Your task to perform on an android device: turn off data saver in the chrome app Image 0: 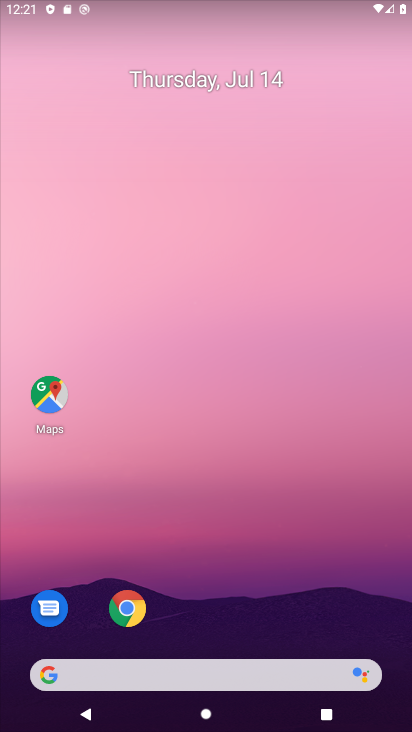
Step 0: drag from (287, 630) to (268, 339)
Your task to perform on an android device: turn off data saver in the chrome app Image 1: 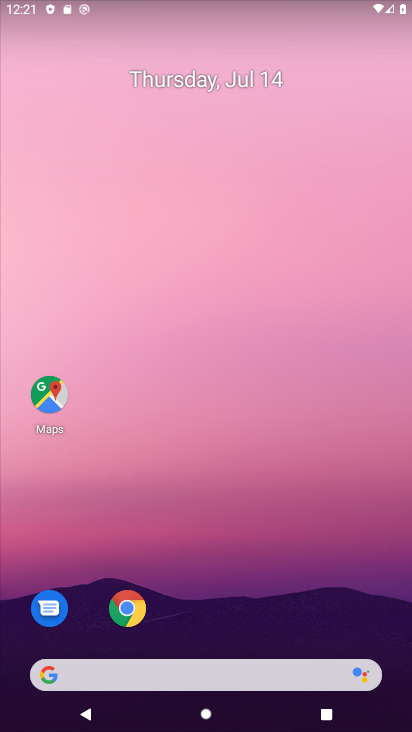
Step 1: drag from (272, 618) to (239, 61)
Your task to perform on an android device: turn off data saver in the chrome app Image 2: 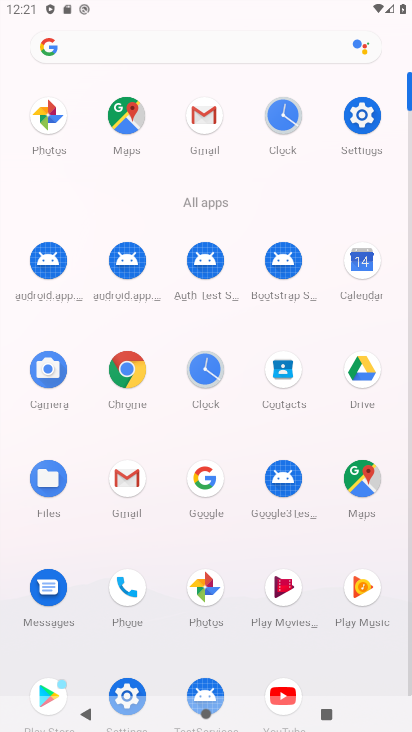
Step 2: click (146, 361)
Your task to perform on an android device: turn off data saver in the chrome app Image 3: 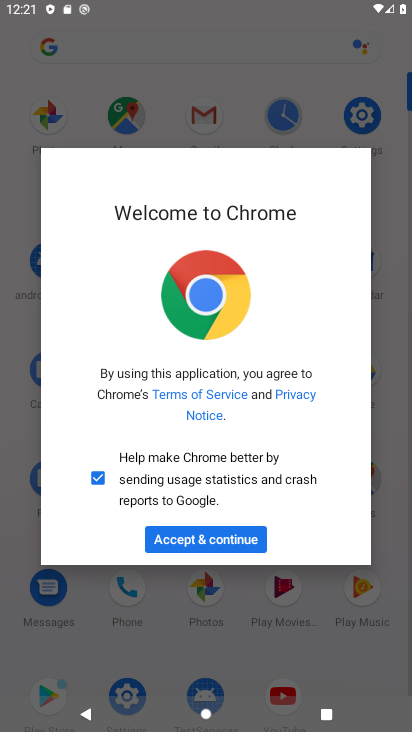
Step 3: click (194, 546)
Your task to perform on an android device: turn off data saver in the chrome app Image 4: 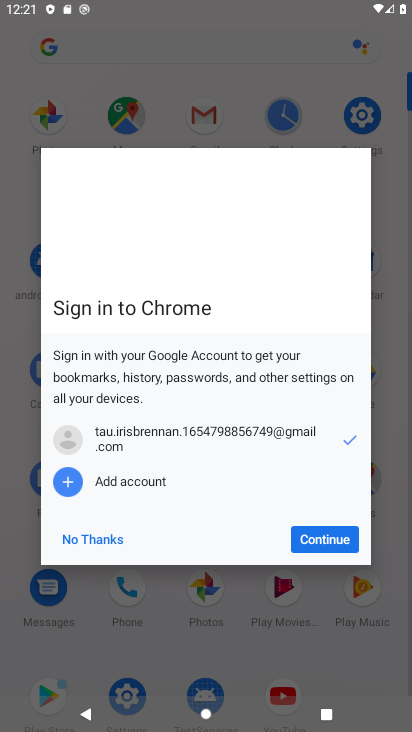
Step 4: drag from (194, 546) to (302, 548)
Your task to perform on an android device: turn off data saver in the chrome app Image 5: 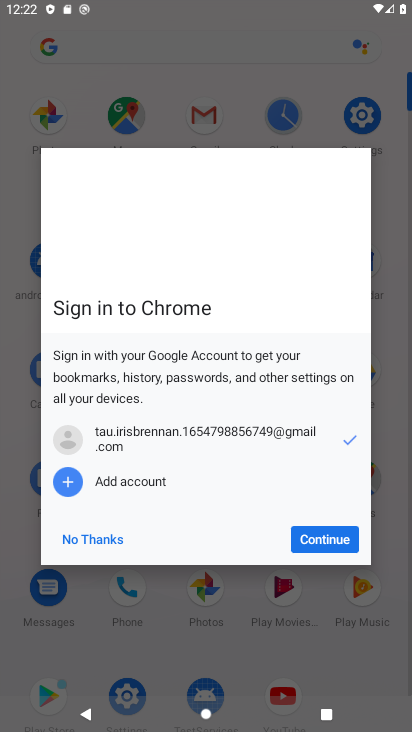
Step 5: click (302, 548)
Your task to perform on an android device: turn off data saver in the chrome app Image 6: 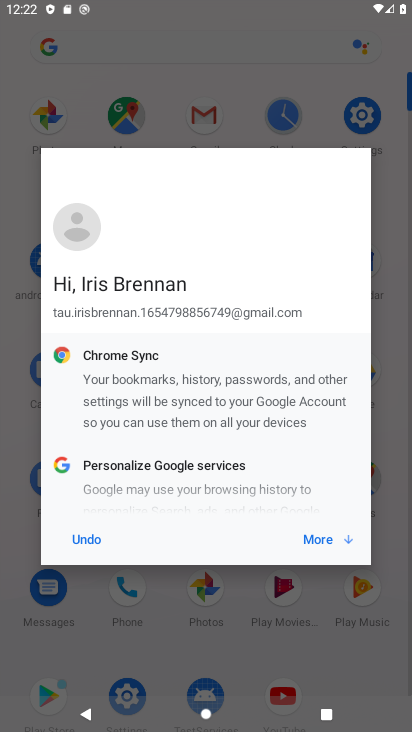
Step 6: click (326, 529)
Your task to perform on an android device: turn off data saver in the chrome app Image 7: 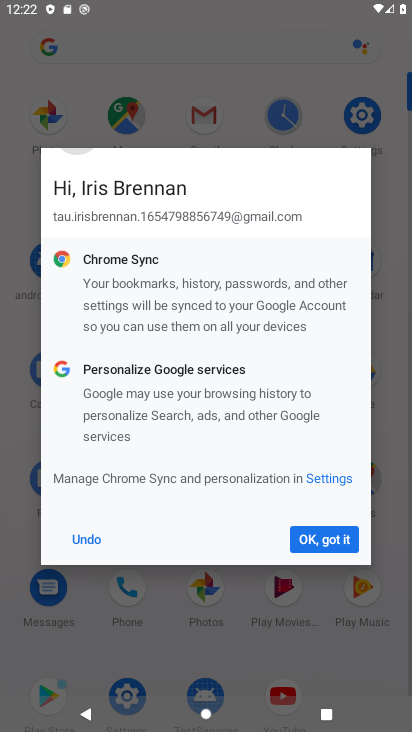
Step 7: drag from (139, 367) to (336, 539)
Your task to perform on an android device: turn off data saver in the chrome app Image 8: 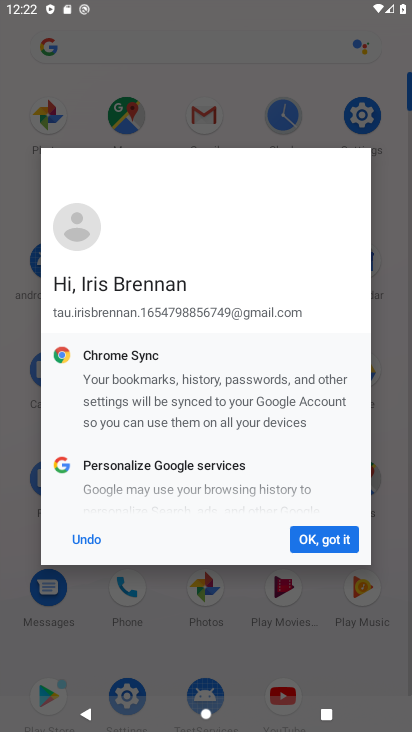
Step 8: drag from (139, 367) to (324, 531)
Your task to perform on an android device: turn off data saver in the chrome app Image 9: 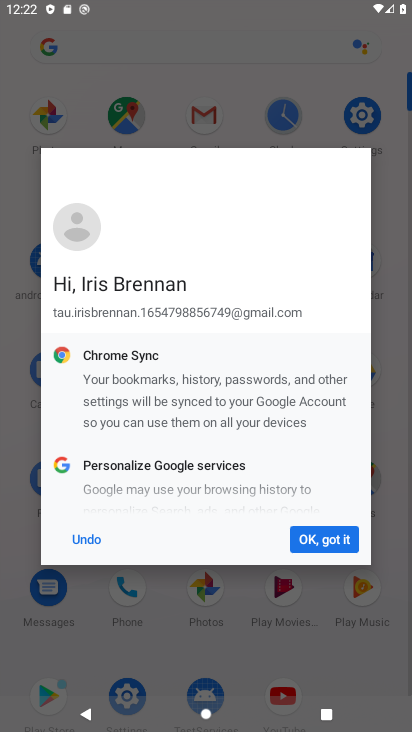
Step 9: drag from (139, 367) to (323, 536)
Your task to perform on an android device: turn off data saver in the chrome app Image 10: 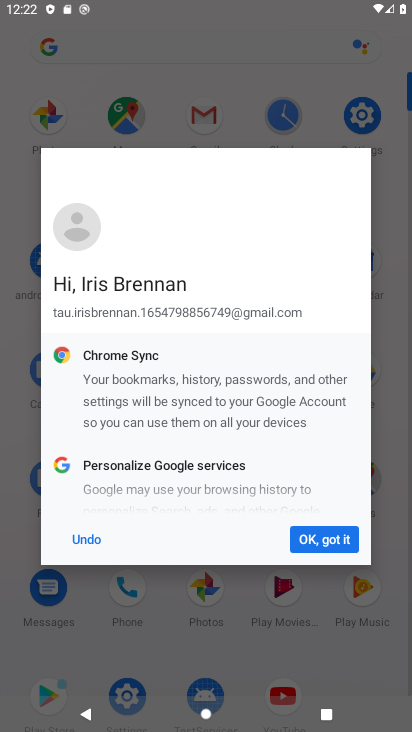
Step 10: click (325, 545)
Your task to perform on an android device: turn off data saver in the chrome app Image 11: 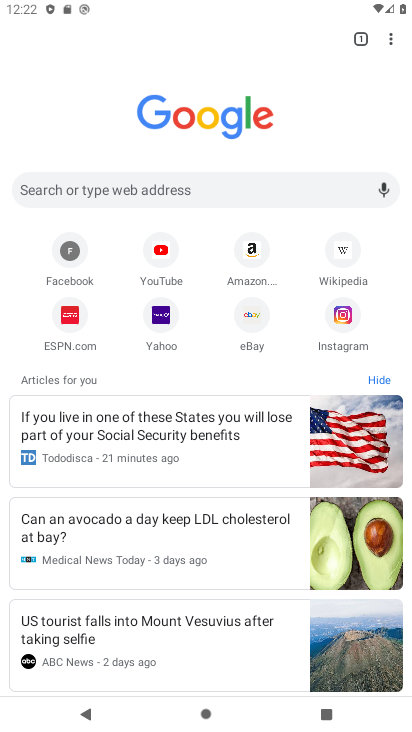
Step 11: click (390, 36)
Your task to perform on an android device: turn off data saver in the chrome app Image 12: 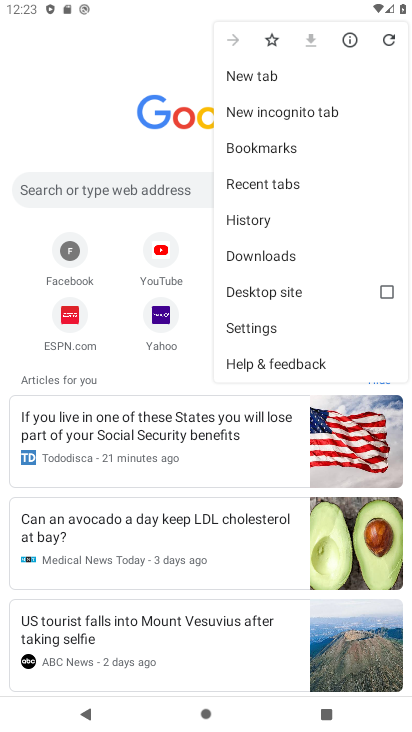
Step 12: click (240, 327)
Your task to perform on an android device: turn off data saver in the chrome app Image 13: 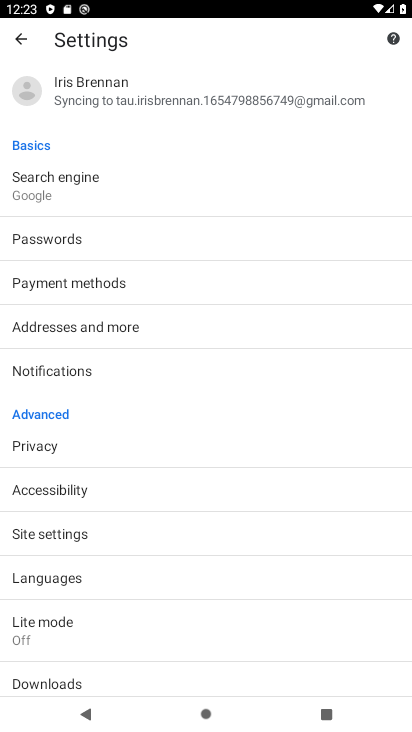
Step 13: click (103, 623)
Your task to perform on an android device: turn off data saver in the chrome app Image 14: 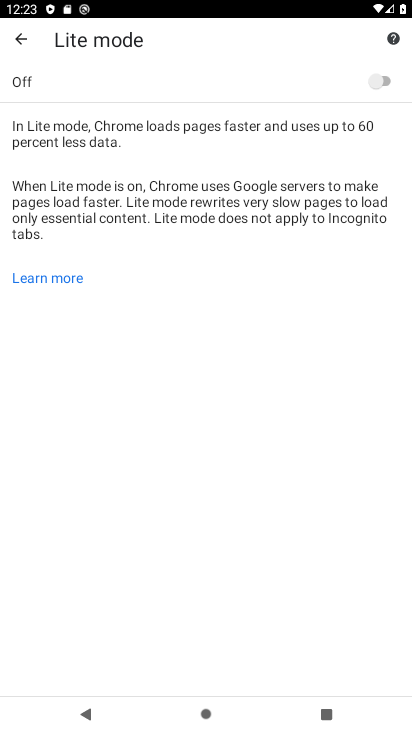
Step 14: click (342, 88)
Your task to perform on an android device: turn off data saver in the chrome app Image 15: 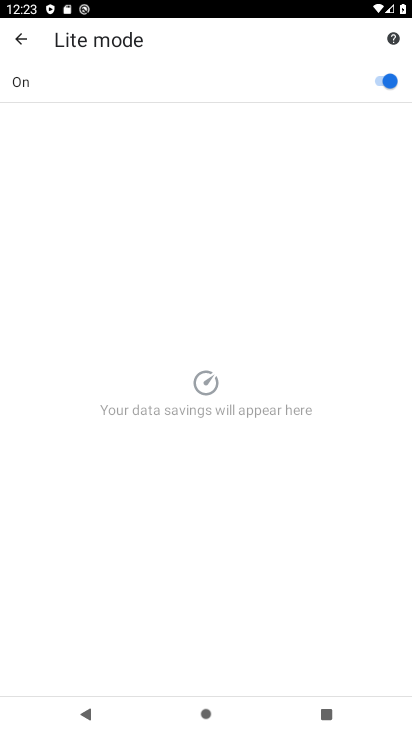
Step 15: click (370, 115)
Your task to perform on an android device: turn off data saver in the chrome app Image 16: 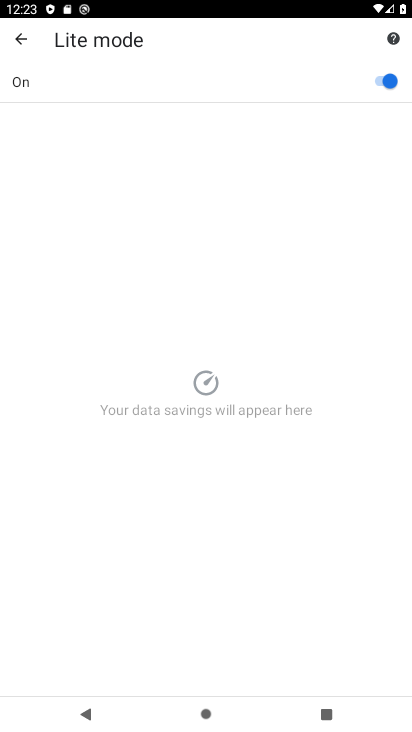
Step 16: click (331, 98)
Your task to perform on an android device: turn off data saver in the chrome app Image 17: 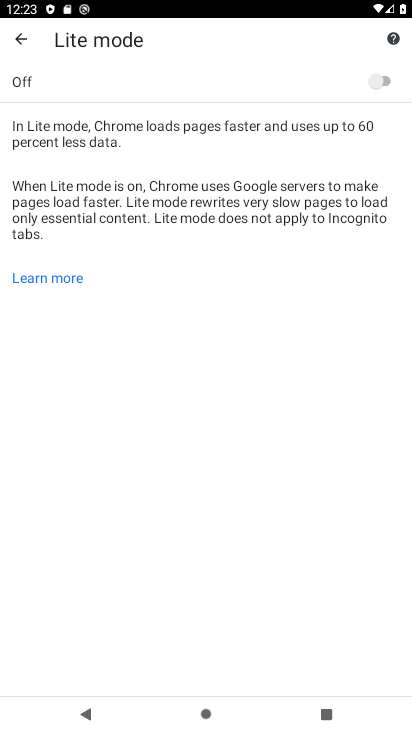
Step 17: task complete